Your task to perform on an android device: turn on priority inbox in the gmail app Image 0: 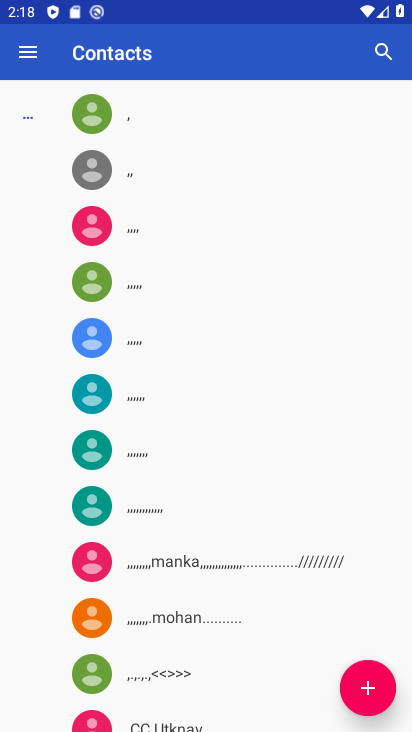
Step 0: press home button
Your task to perform on an android device: turn on priority inbox in the gmail app Image 1: 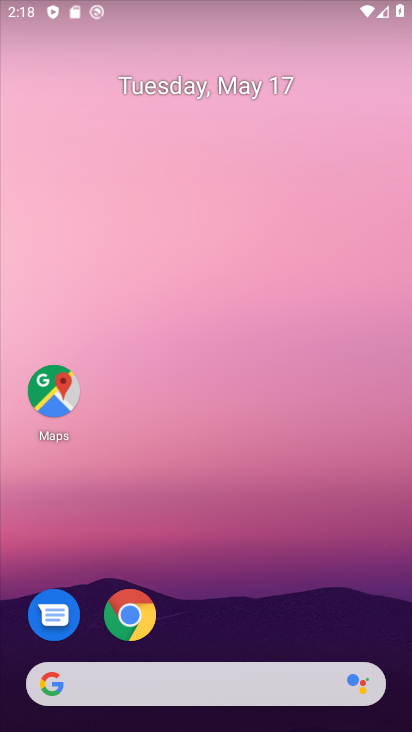
Step 1: drag from (238, 675) to (254, 136)
Your task to perform on an android device: turn on priority inbox in the gmail app Image 2: 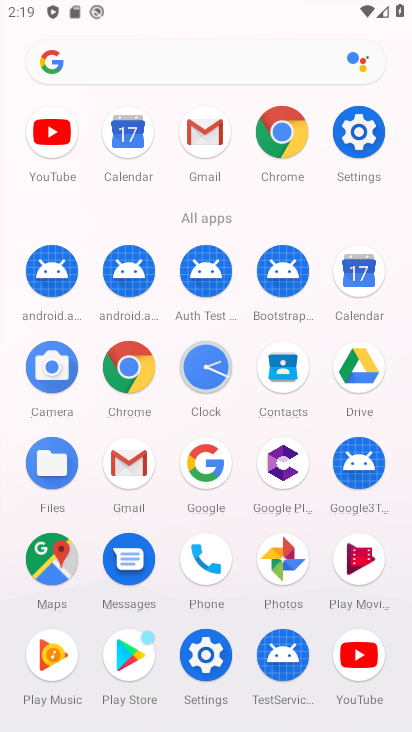
Step 2: click (125, 471)
Your task to perform on an android device: turn on priority inbox in the gmail app Image 3: 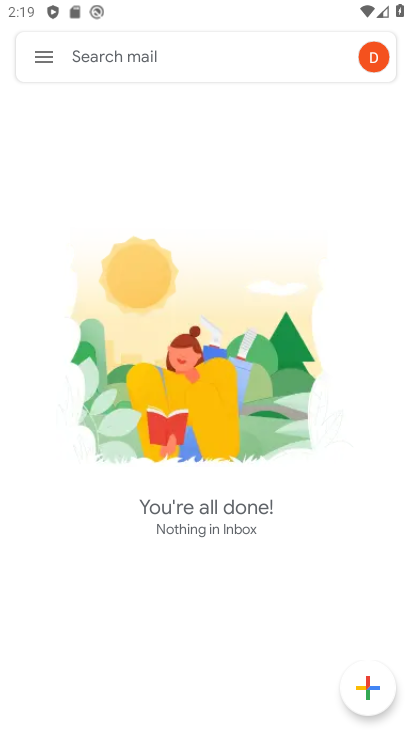
Step 3: click (47, 55)
Your task to perform on an android device: turn on priority inbox in the gmail app Image 4: 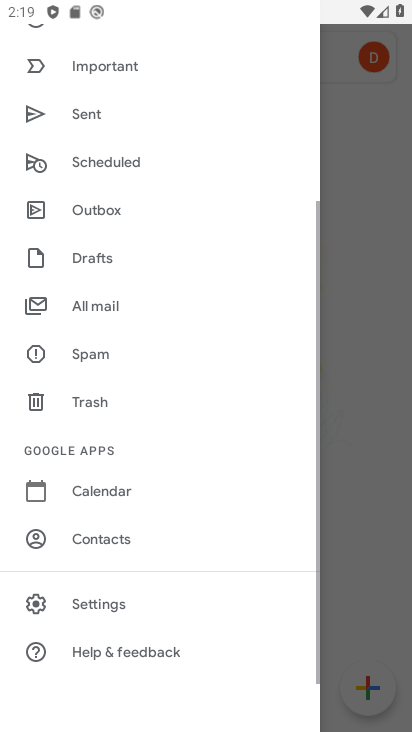
Step 4: click (95, 600)
Your task to perform on an android device: turn on priority inbox in the gmail app Image 5: 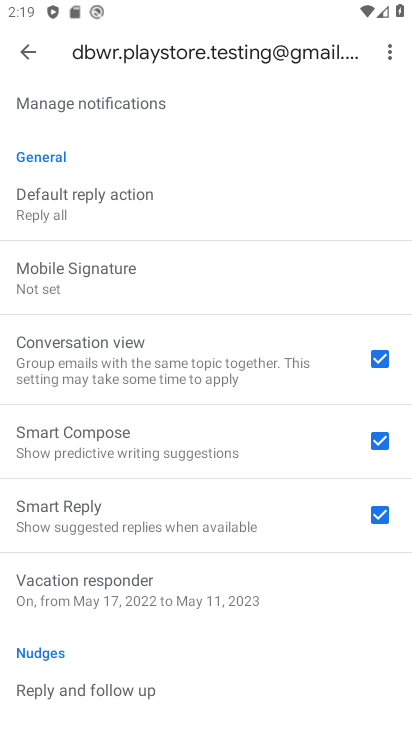
Step 5: drag from (149, 625) to (160, 529)
Your task to perform on an android device: turn on priority inbox in the gmail app Image 6: 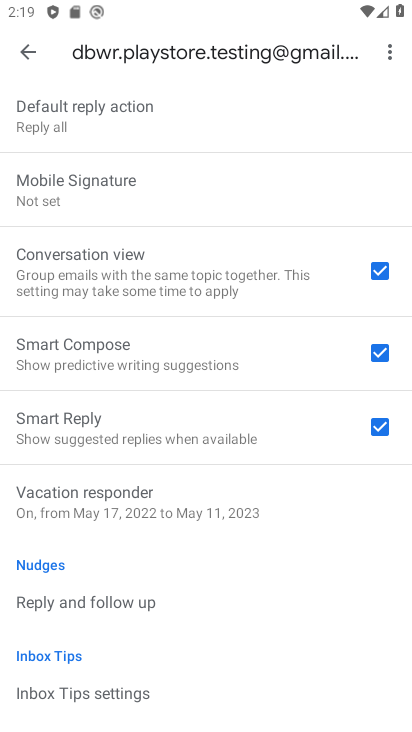
Step 6: drag from (209, 205) to (208, 432)
Your task to perform on an android device: turn on priority inbox in the gmail app Image 7: 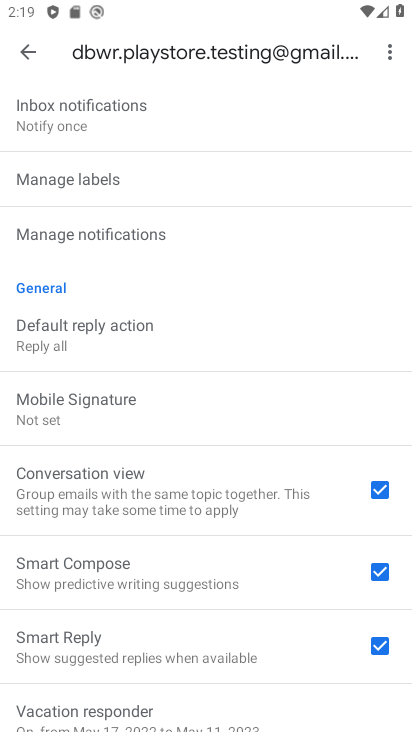
Step 7: drag from (196, 129) to (178, 634)
Your task to perform on an android device: turn on priority inbox in the gmail app Image 8: 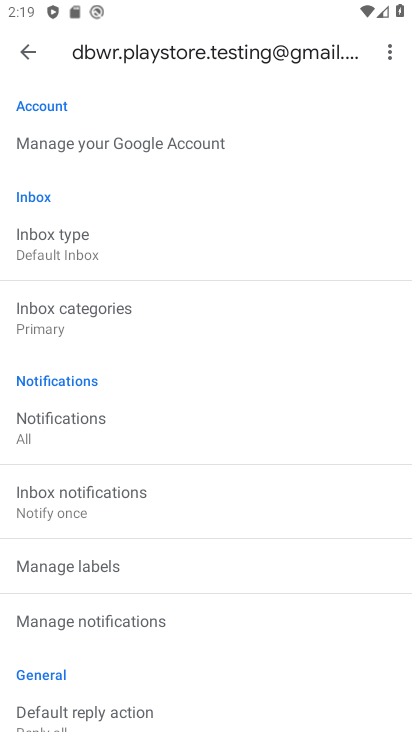
Step 8: drag from (207, 170) to (185, 571)
Your task to perform on an android device: turn on priority inbox in the gmail app Image 9: 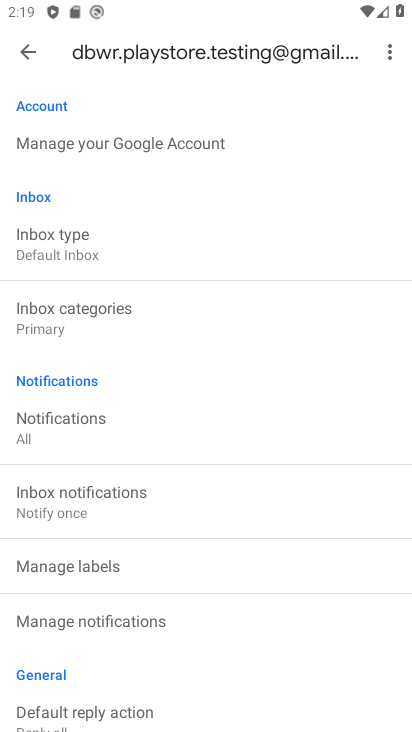
Step 9: click (67, 255)
Your task to perform on an android device: turn on priority inbox in the gmail app Image 10: 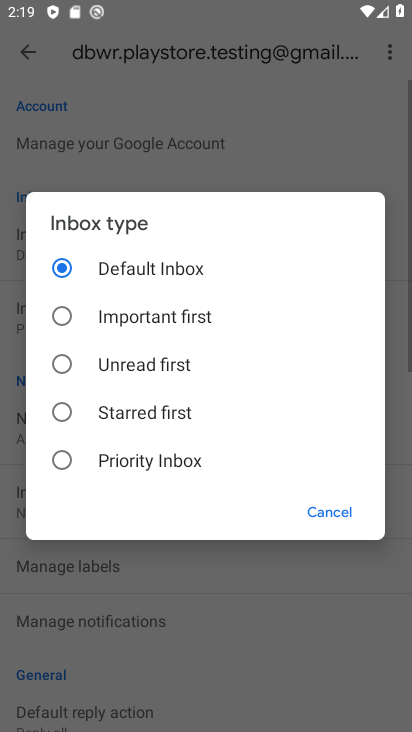
Step 10: click (63, 461)
Your task to perform on an android device: turn on priority inbox in the gmail app Image 11: 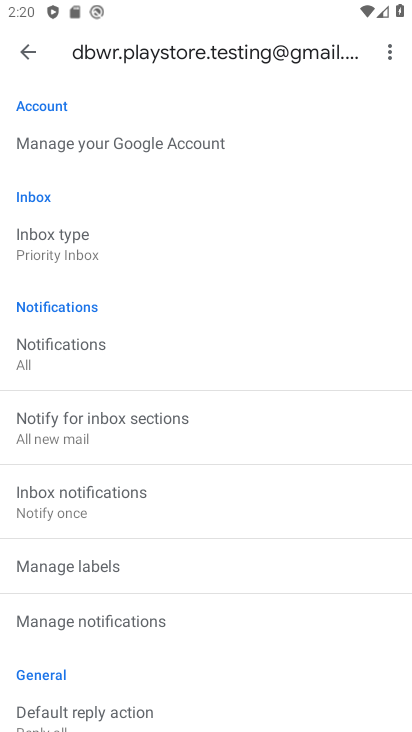
Step 11: task complete